Your task to perform on an android device: toggle airplane mode Image 0: 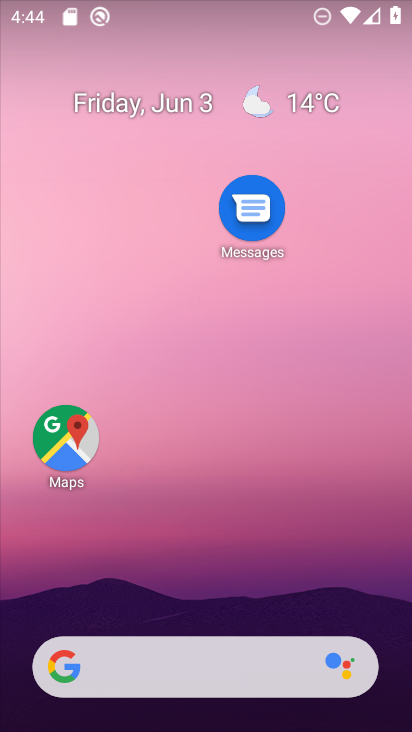
Step 0: drag from (227, 596) to (238, 337)
Your task to perform on an android device: toggle airplane mode Image 1: 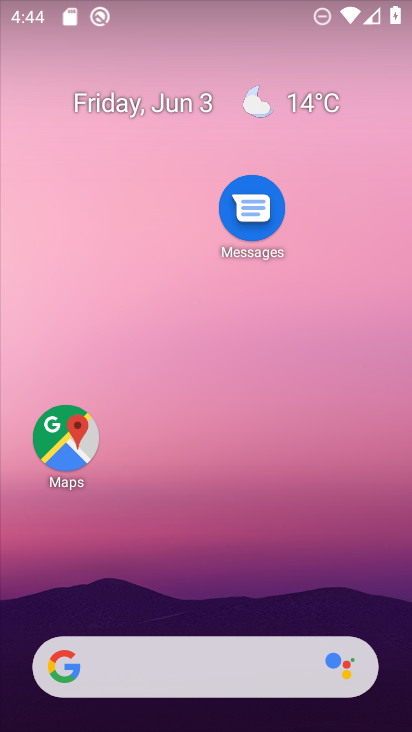
Step 1: drag from (216, 598) to (220, 163)
Your task to perform on an android device: toggle airplane mode Image 2: 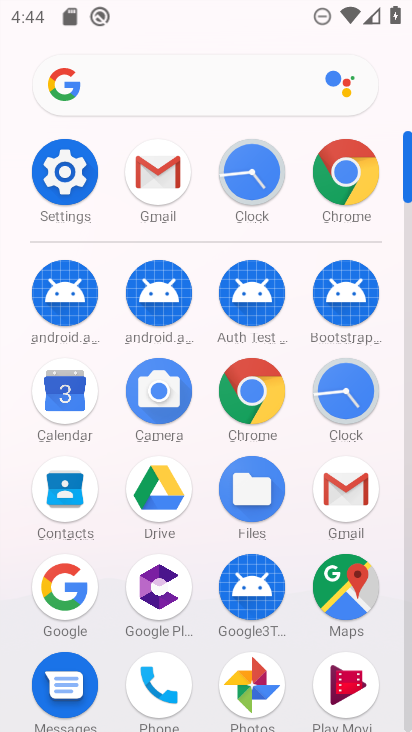
Step 2: click (70, 177)
Your task to perform on an android device: toggle airplane mode Image 3: 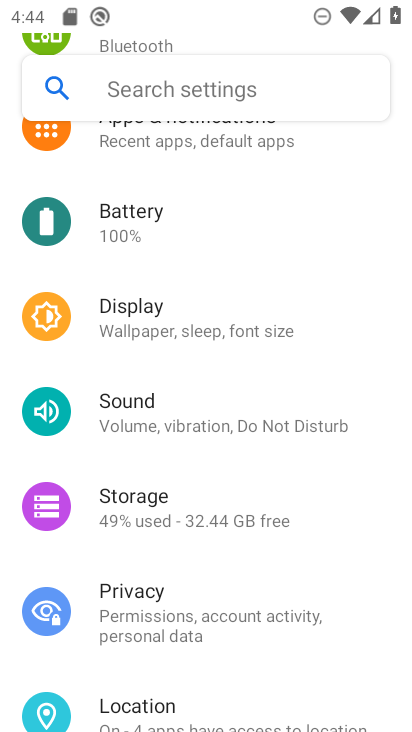
Step 3: drag from (221, 286) to (226, 462)
Your task to perform on an android device: toggle airplane mode Image 4: 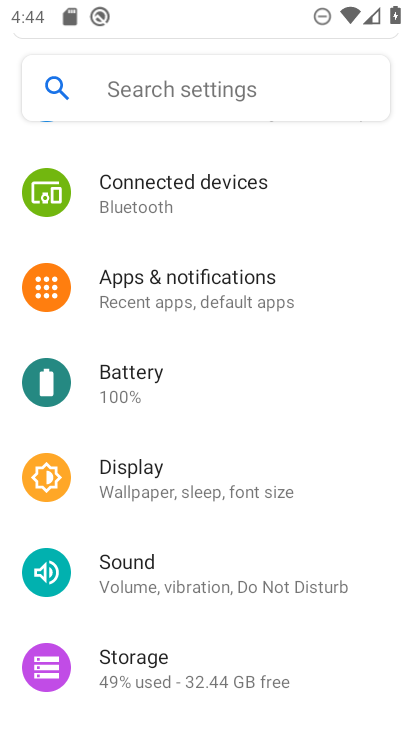
Step 4: drag from (236, 351) to (228, 561)
Your task to perform on an android device: toggle airplane mode Image 5: 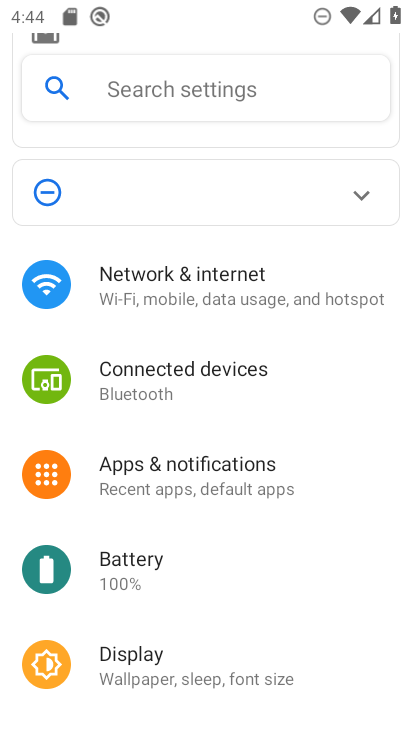
Step 5: click (200, 300)
Your task to perform on an android device: toggle airplane mode Image 6: 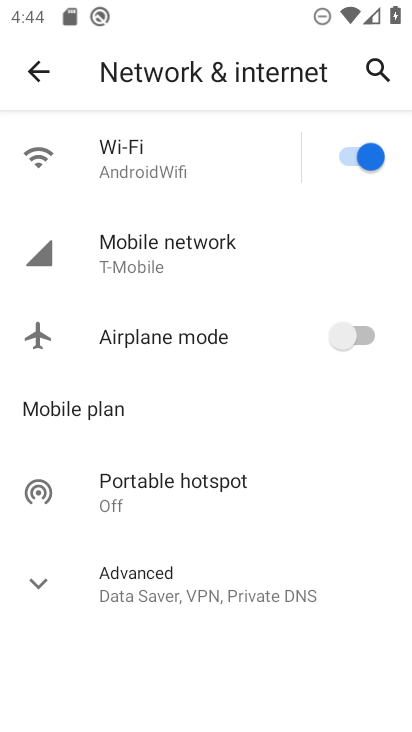
Step 6: click (362, 325)
Your task to perform on an android device: toggle airplane mode Image 7: 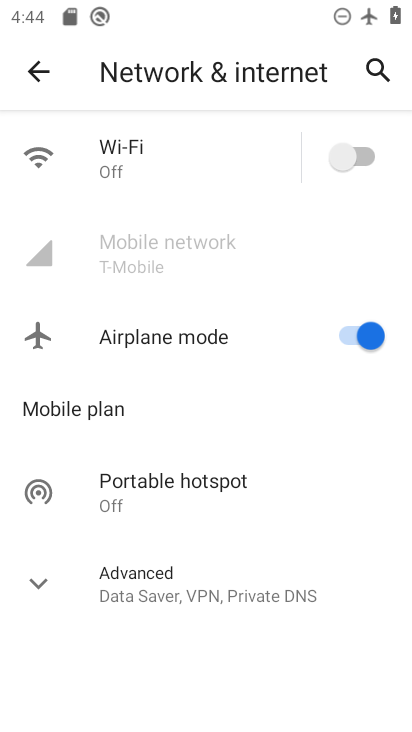
Step 7: task complete